Your task to perform on an android device: change your default location settings in chrome Image 0: 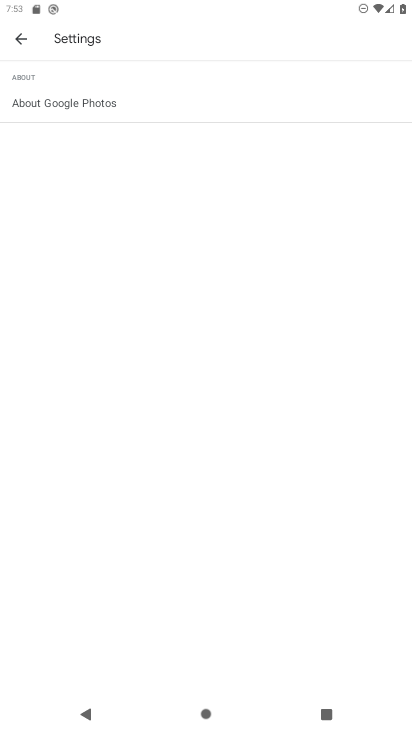
Step 0: press home button
Your task to perform on an android device: change your default location settings in chrome Image 1: 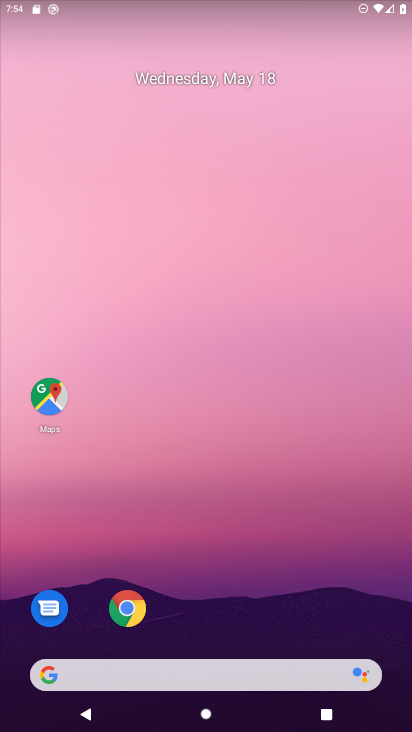
Step 1: click (130, 604)
Your task to perform on an android device: change your default location settings in chrome Image 2: 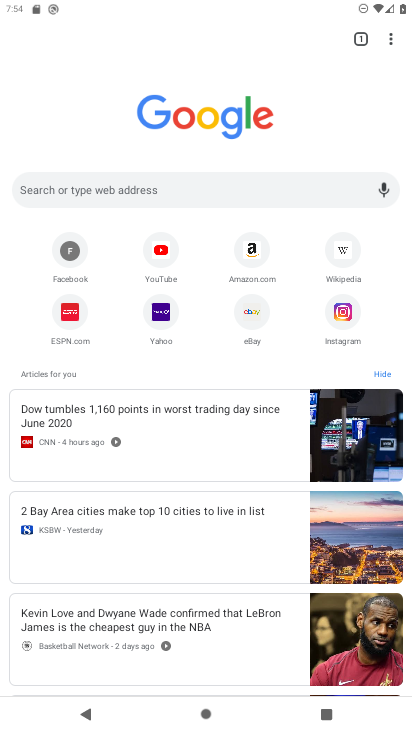
Step 2: click (389, 32)
Your task to perform on an android device: change your default location settings in chrome Image 3: 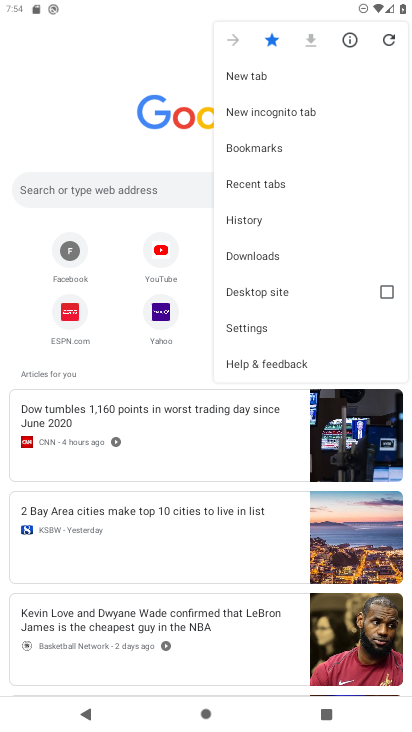
Step 3: click (272, 324)
Your task to perform on an android device: change your default location settings in chrome Image 4: 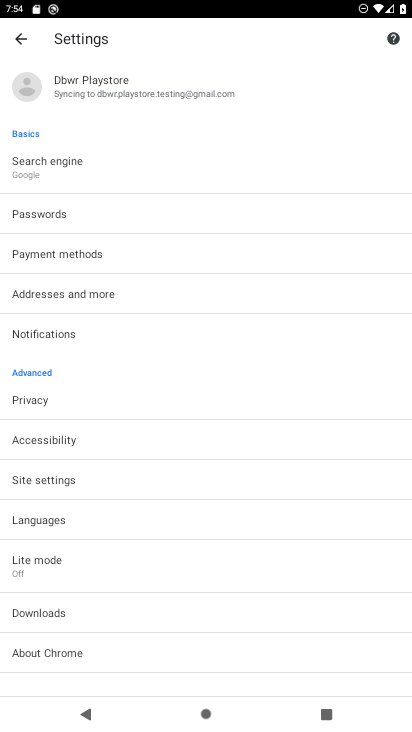
Step 4: click (77, 468)
Your task to perform on an android device: change your default location settings in chrome Image 5: 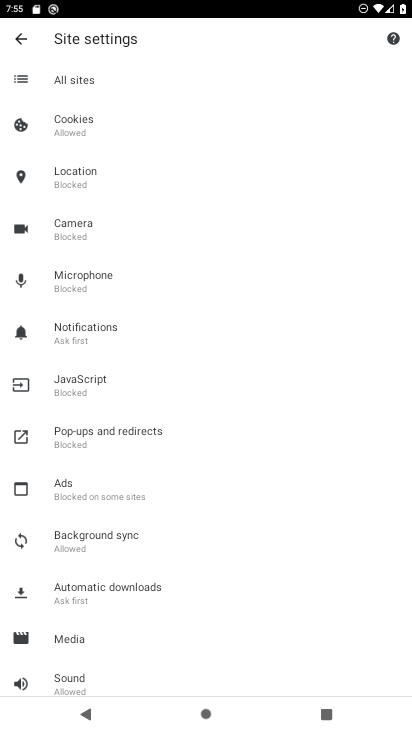
Step 5: click (99, 180)
Your task to perform on an android device: change your default location settings in chrome Image 6: 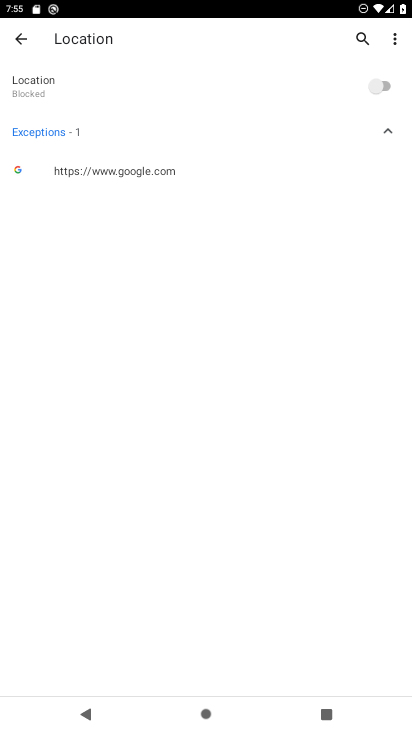
Step 6: click (383, 97)
Your task to perform on an android device: change your default location settings in chrome Image 7: 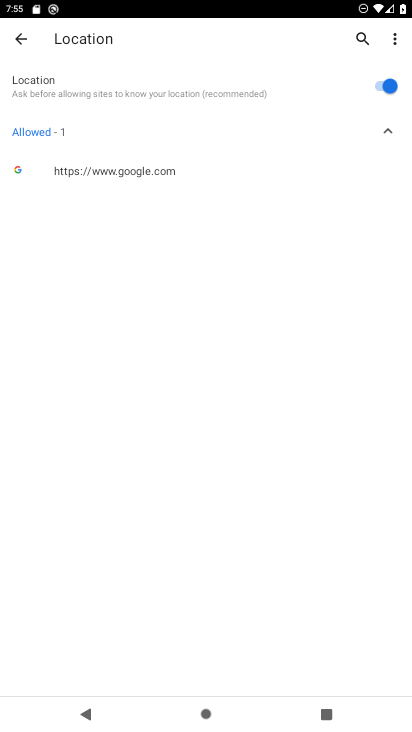
Step 7: task complete